Your task to perform on an android device: Open the calendar app, open the side menu, and click the "Day" option Image 0: 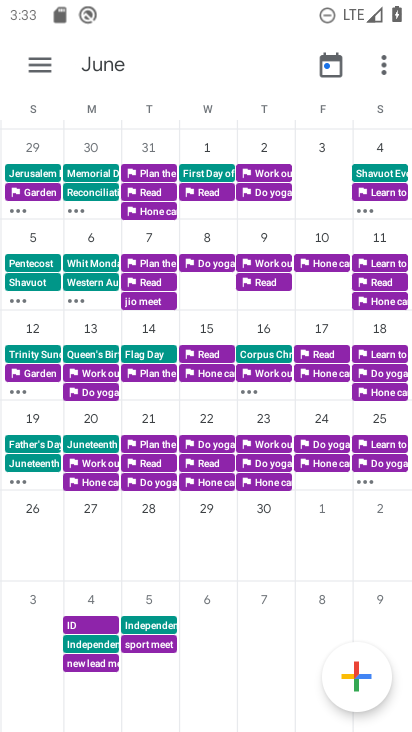
Step 0: click (45, 77)
Your task to perform on an android device: Open the calendar app, open the side menu, and click the "Day" option Image 1: 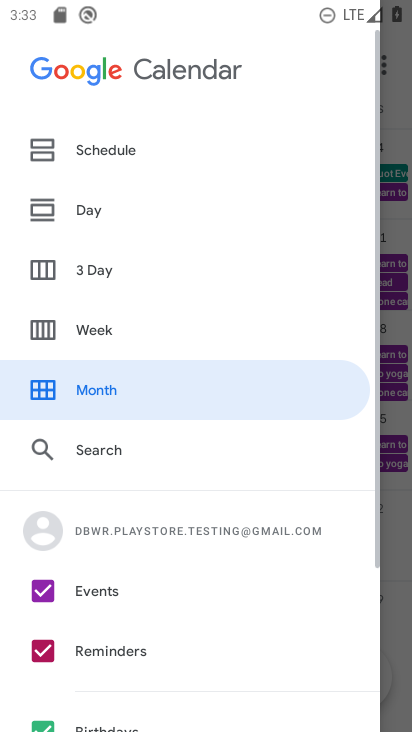
Step 1: click (108, 184)
Your task to perform on an android device: Open the calendar app, open the side menu, and click the "Day" option Image 2: 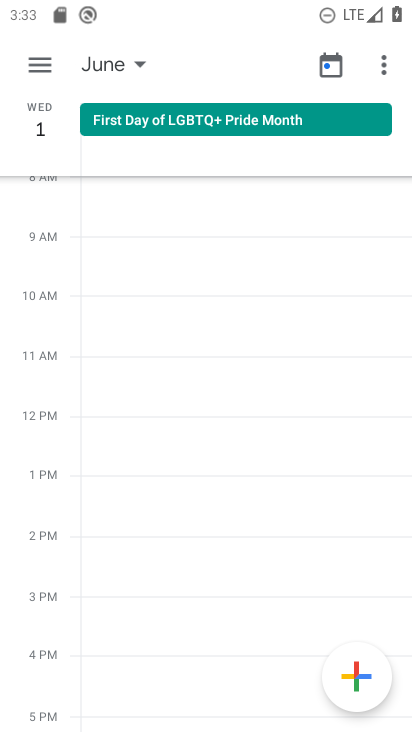
Step 2: task complete